Your task to perform on an android device: turn on airplane mode Image 0: 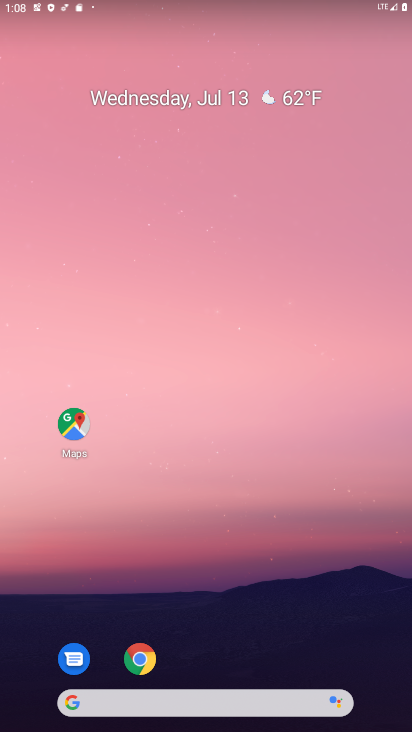
Step 0: drag from (231, 702) to (233, 134)
Your task to perform on an android device: turn on airplane mode Image 1: 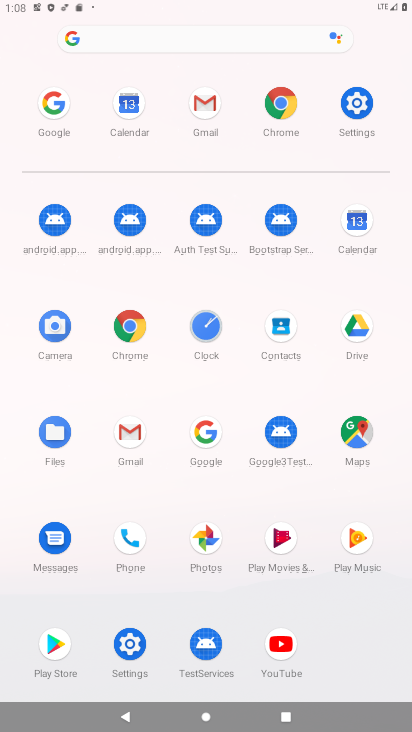
Step 1: click (364, 99)
Your task to perform on an android device: turn on airplane mode Image 2: 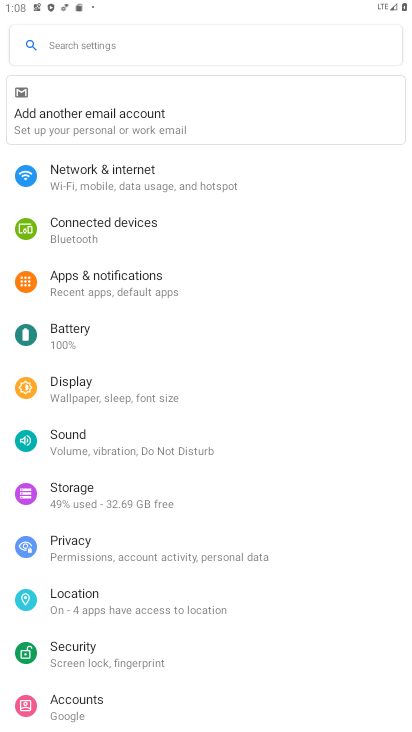
Step 2: click (78, 176)
Your task to perform on an android device: turn on airplane mode Image 3: 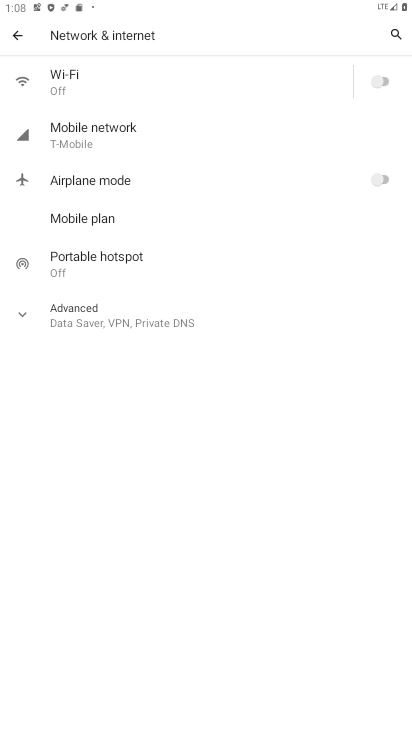
Step 3: click (390, 178)
Your task to perform on an android device: turn on airplane mode Image 4: 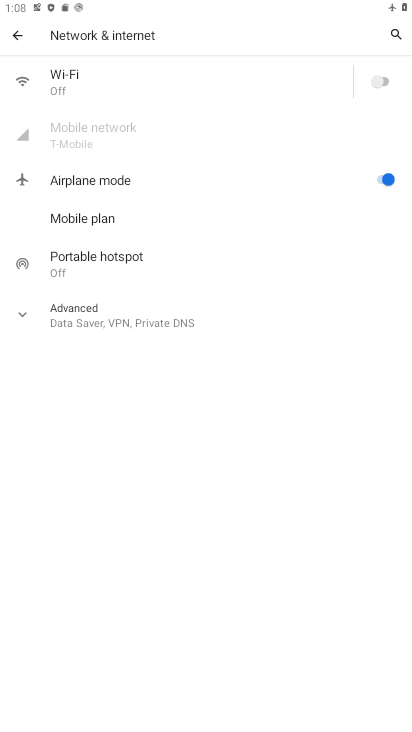
Step 4: task complete